Your task to perform on an android device: check the backup settings in the google photos Image 0: 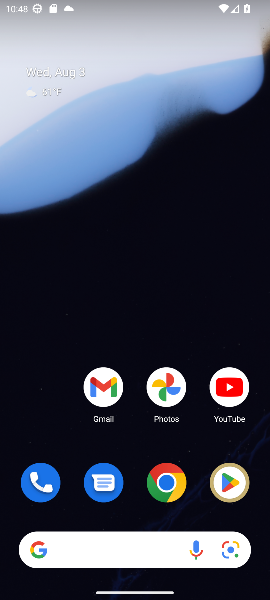
Step 0: click (160, 410)
Your task to perform on an android device: check the backup settings in the google photos Image 1: 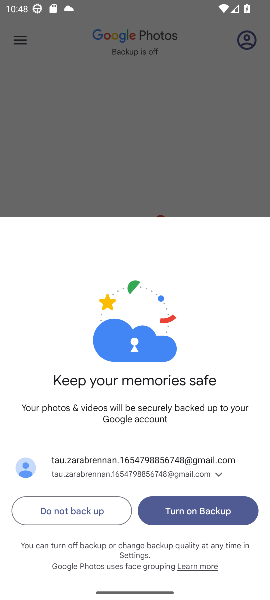
Step 1: click (100, 506)
Your task to perform on an android device: check the backup settings in the google photos Image 2: 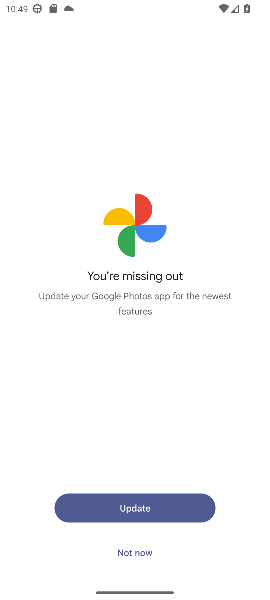
Step 2: task complete